Your task to perform on an android device: stop showing notifications on the lock screen Image 0: 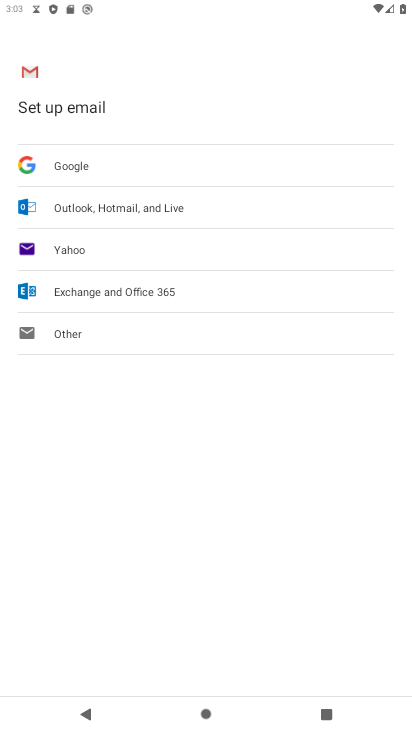
Step 0: press home button
Your task to perform on an android device: stop showing notifications on the lock screen Image 1: 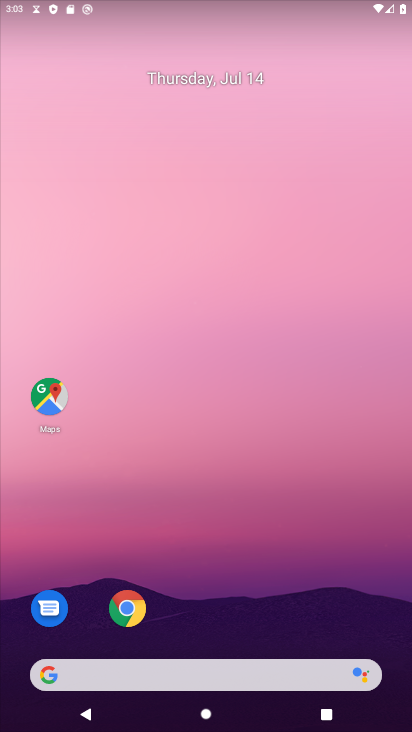
Step 1: drag from (201, 653) to (106, 14)
Your task to perform on an android device: stop showing notifications on the lock screen Image 2: 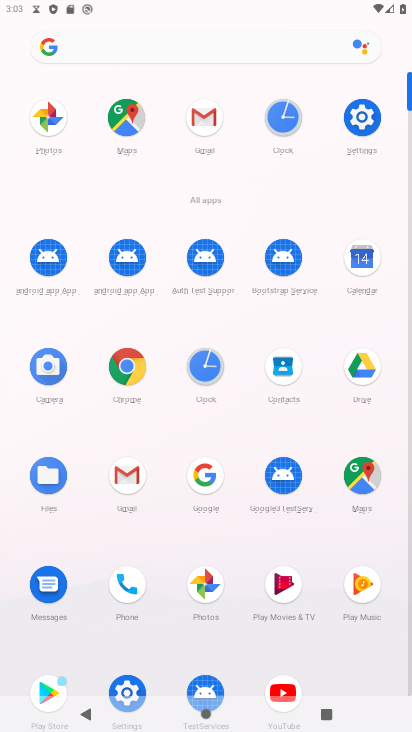
Step 2: click (354, 123)
Your task to perform on an android device: stop showing notifications on the lock screen Image 3: 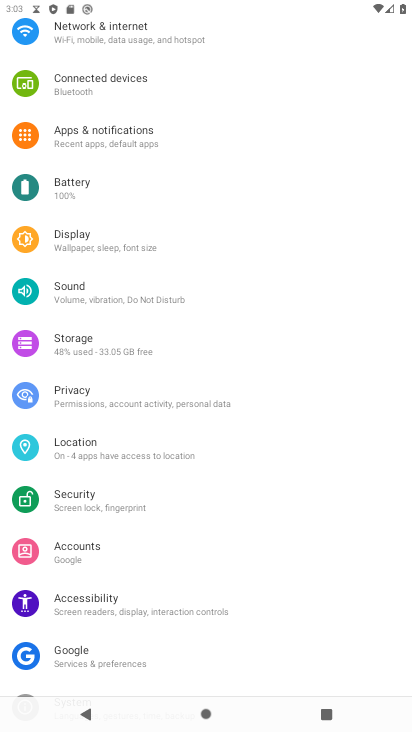
Step 3: click (133, 141)
Your task to perform on an android device: stop showing notifications on the lock screen Image 4: 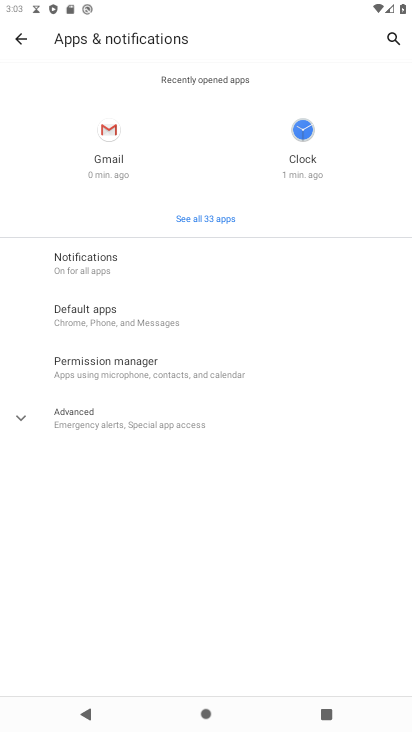
Step 4: click (94, 281)
Your task to perform on an android device: stop showing notifications on the lock screen Image 5: 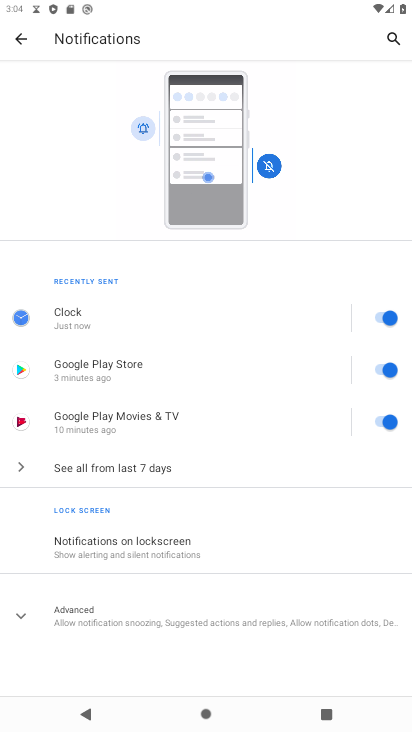
Step 5: click (98, 543)
Your task to perform on an android device: stop showing notifications on the lock screen Image 6: 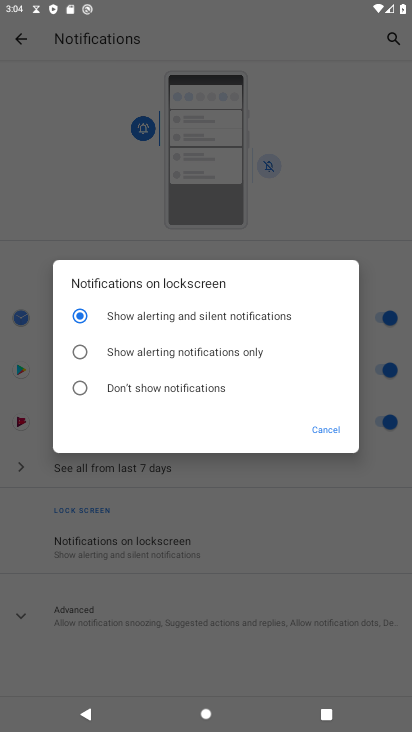
Step 6: click (156, 387)
Your task to perform on an android device: stop showing notifications on the lock screen Image 7: 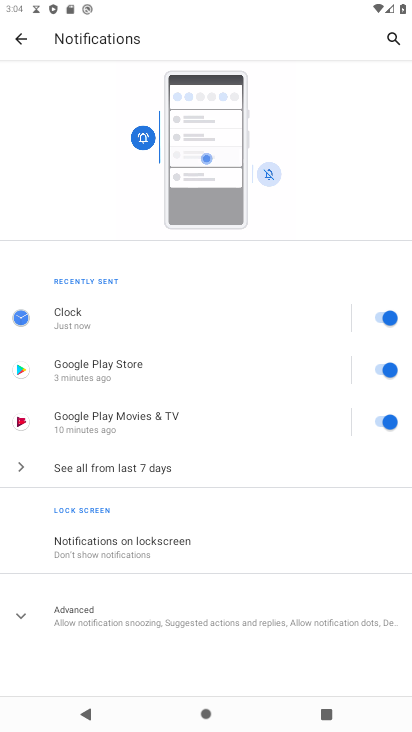
Step 7: task complete